Your task to perform on an android device: open sync settings in chrome Image 0: 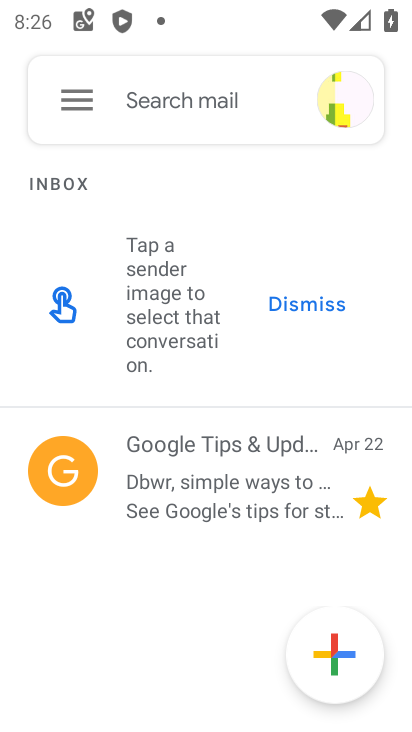
Step 0: press home button
Your task to perform on an android device: open sync settings in chrome Image 1: 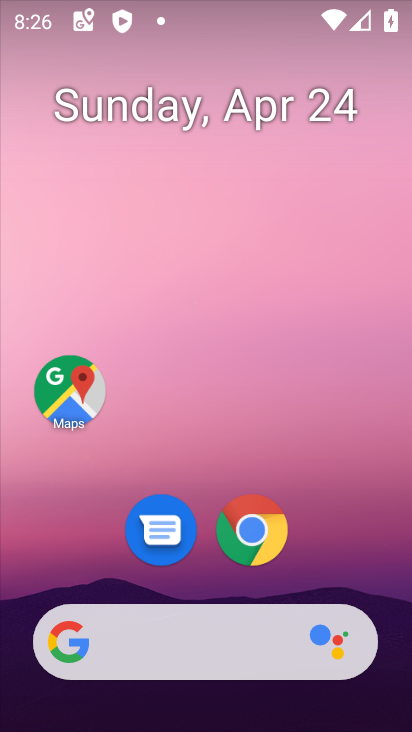
Step 1: click (245, 531)
Your task to perform on an android device: open sync settings in chrome Image 2: 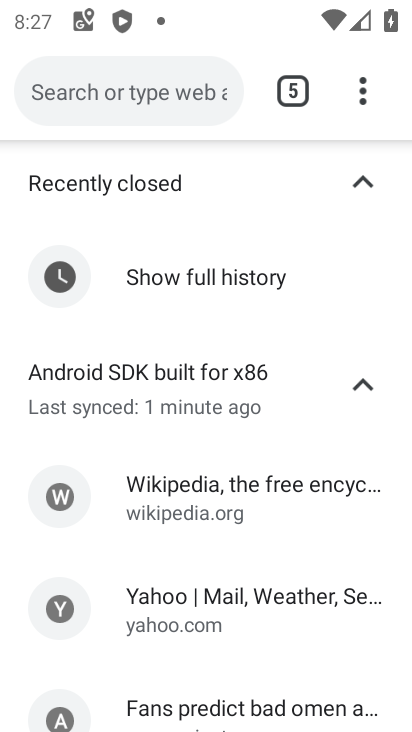
Step 2: click (363, 80)
Your task to perform on an android device: open sync settings in chrome Image 3: 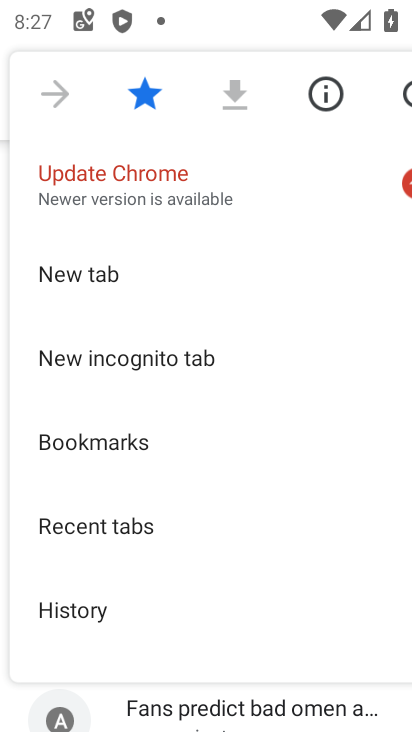
Step 3: drag from (250, 588) to (224, 170)
Your task to perform on an android device: open sync settings in chrome Image 4: 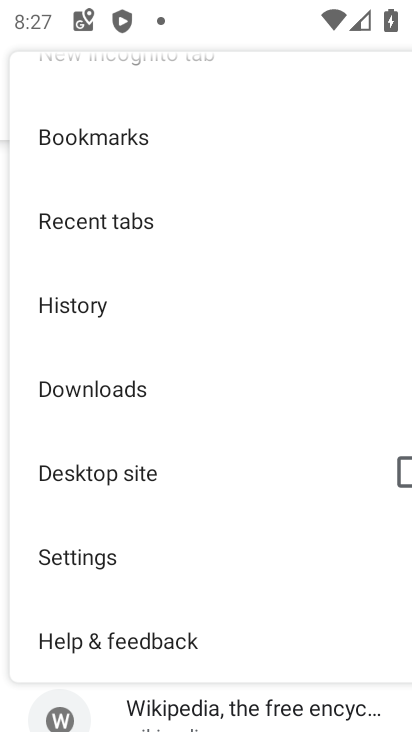
Step 4: drag from (168, 503) to (187, 186)
Your task to perform on an android device: open sync settings in chrome Image 5: 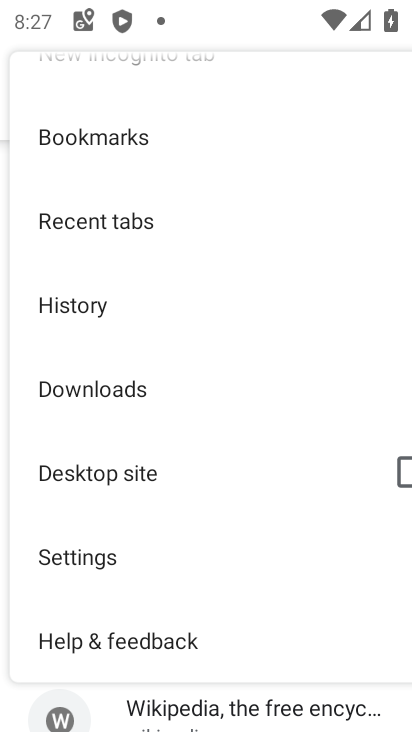
Step 5: click (164, 561)
Your task to perform on an android device: open sync settings in chrome Image 6: 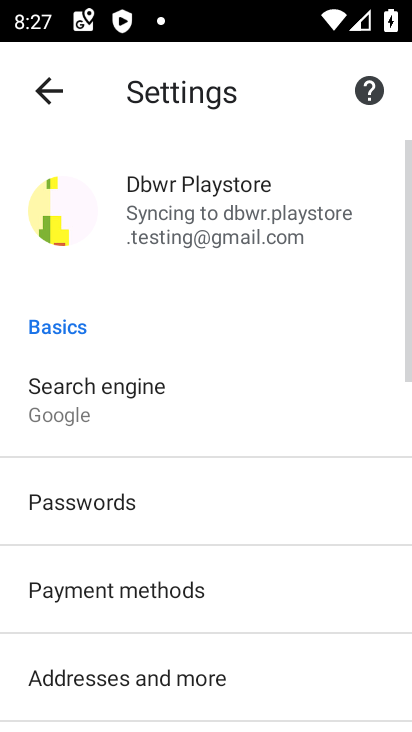
Step 6: click (206, 206)
Your task to perform on an android device: open sync settings in chrome Image 7: 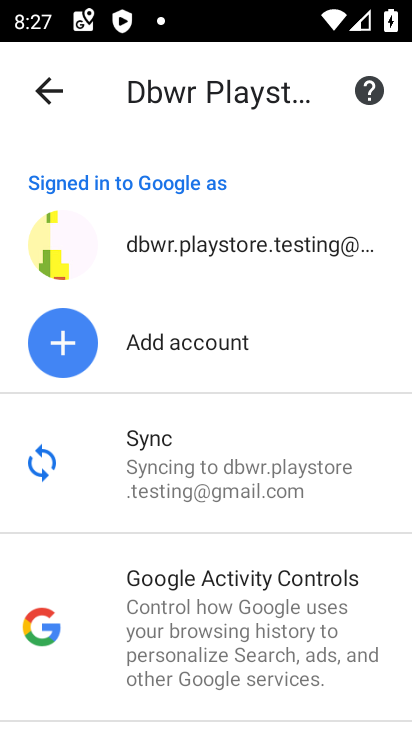
Step 7: click (215, 485)
Your task to perform on an android device: open sync settings in chrome Image 8: 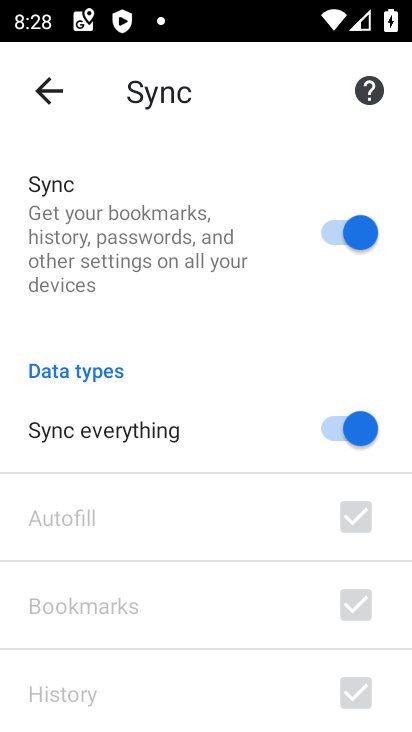
Step 8: task complete